Your task to perform on an android device: turn on sleep mode Image 0: 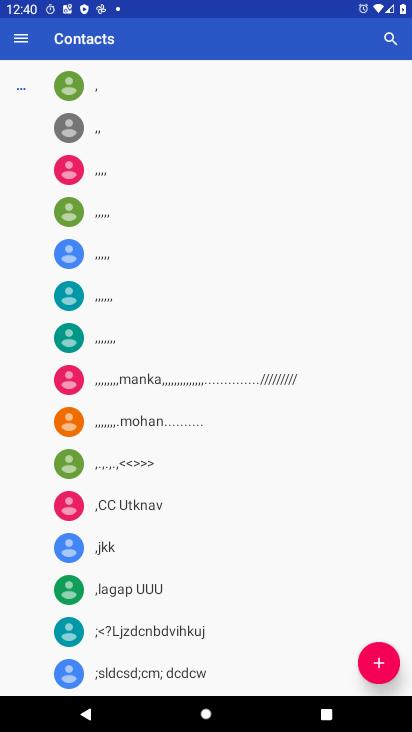
Step 0: press home button
Your task to perform on an android device: turn on sleep mode Image 1: 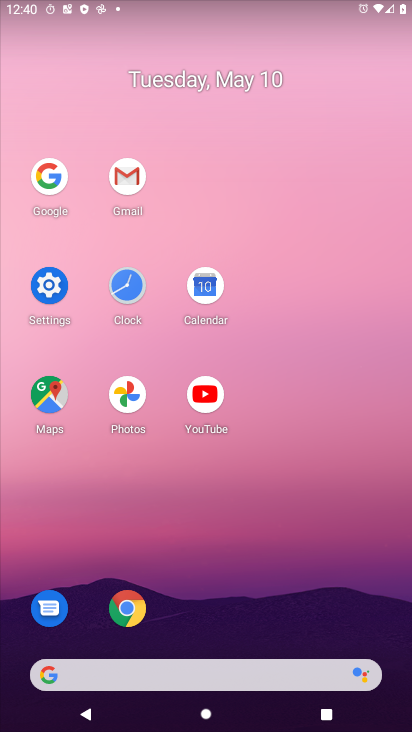
Step 1: click (52, 293)
Your task to perform on an android device: turn on sleep mode Image 2: 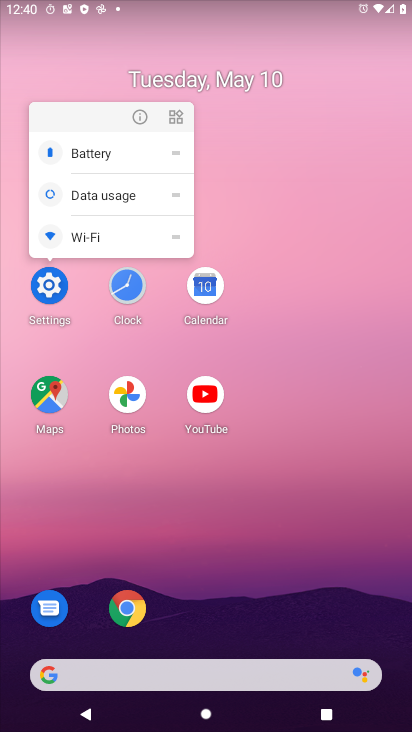
Step 2: click (66, 277)
Your task to perform on an android device: turn on sleep mode Image 3: 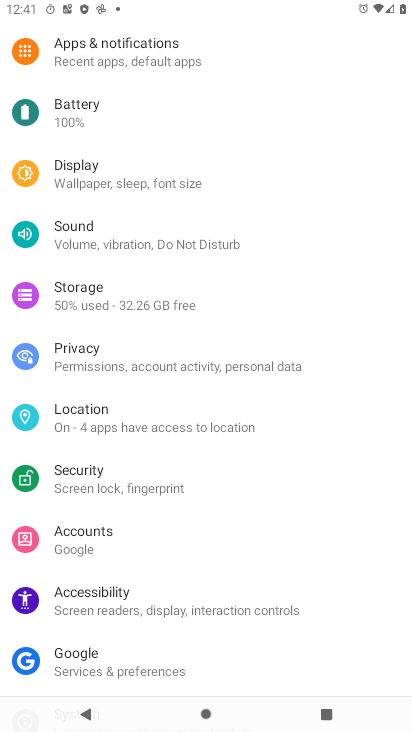
Step 3: click (205, 170)
Your task to perform on an android device: turn on sleep mode Image 4: 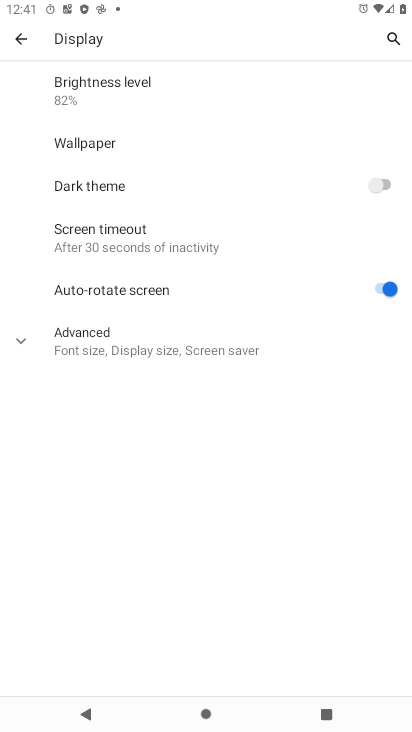
Step 4: click (199, 241)
Your task to perform on an android device: turn on sleep mode Image 5: 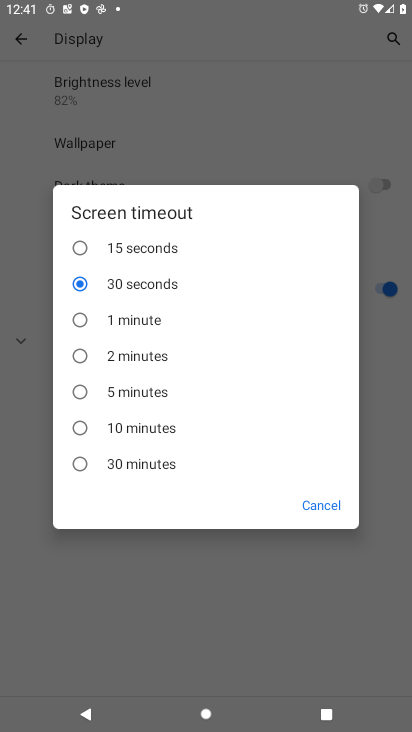
Step 5: task complete